Your task to perform on an android device: Find coffee shops on Maps Image 0: 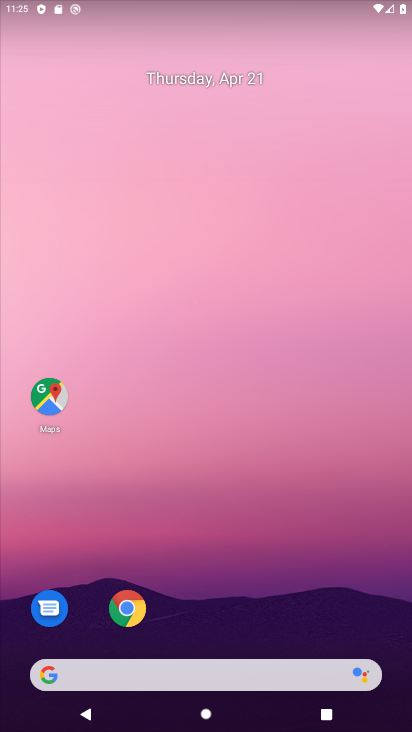
Step 0: drag from (99, 201) to (75, 2)
Your task to perform on an android device: Find coffee shops on Maps Image 1: 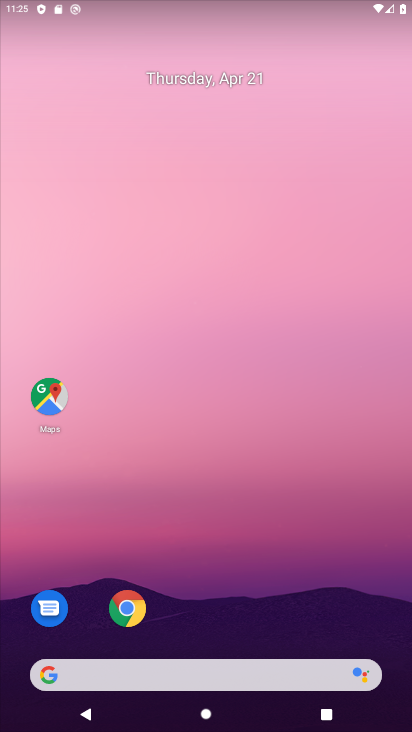
Step 1: drag from (228, 679) to (49, 64)
Your task to perform on an android device: Find coffee shops on Maps Image 2: 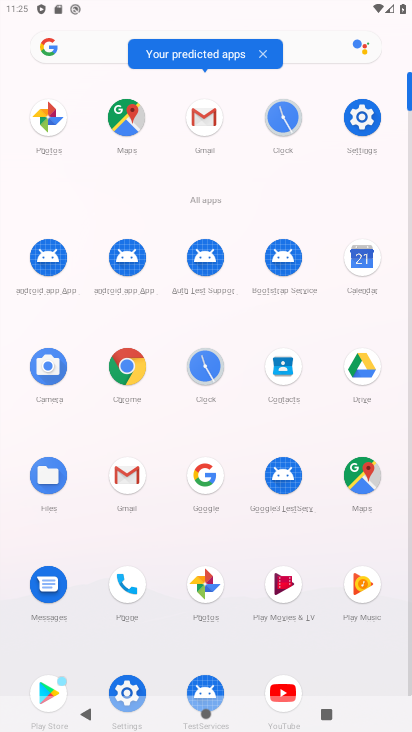
Step 2: click (374, 475)
Your task to perform on an android device: Find coffee shops on Maps Image 3: 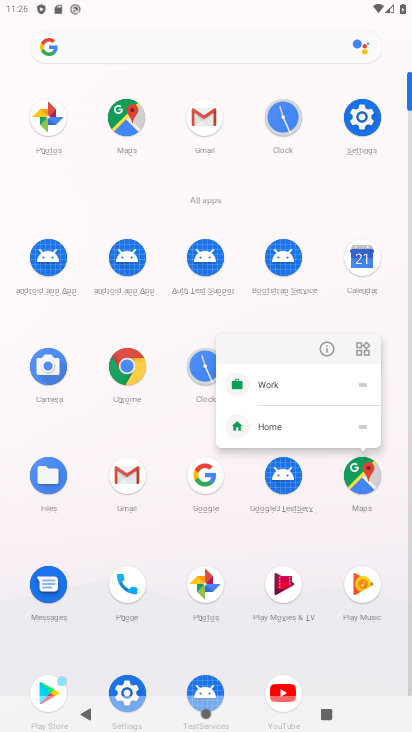
Step 3: click (357, 477)
Your task to perform on an android device: Find coffee shops on Maps Image 4: 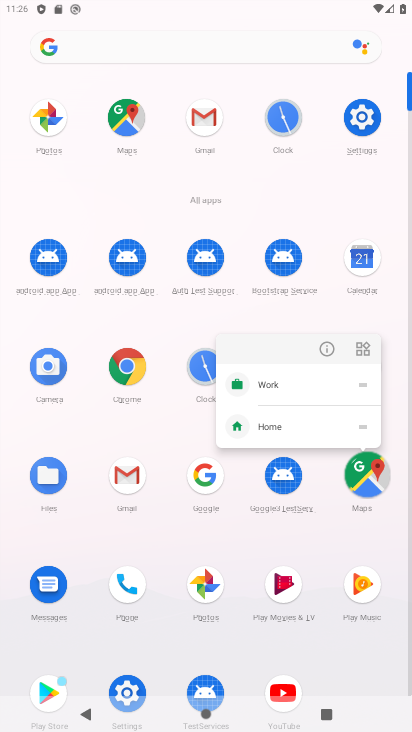
Step 4: click (362, 476)
Your task to perform on an android device: Find coffee shops on Maps Image 5: 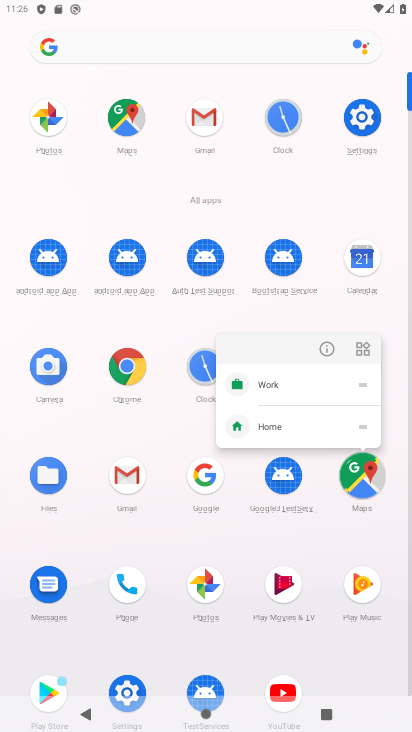
Step 5: click (362, 476)
Your task to perform on an android device: Find coffee shops on Maps Image 6: 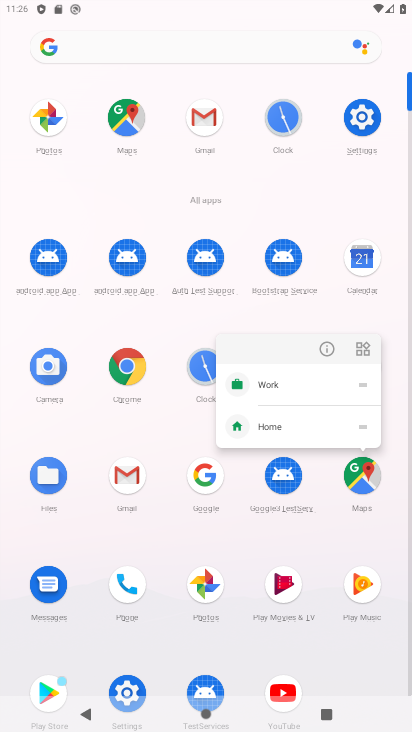
Step 6: click (365, 470)
Your task to perform on an android device: Find coffee shops on Maps Image 7: 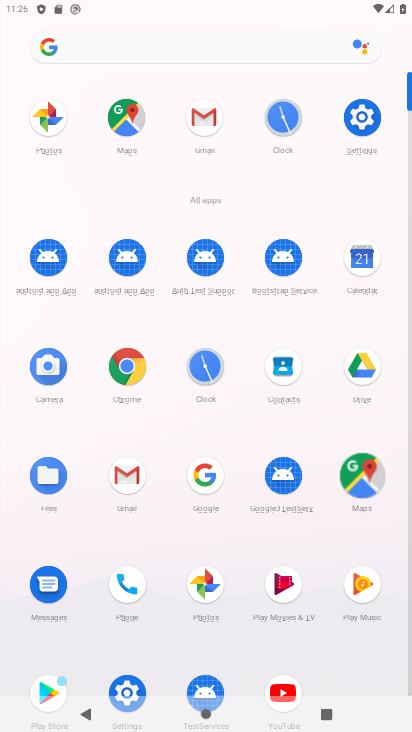
Step 7: click (368, 468)
Your task to perform on an android device: Find coffee shops on Maps Image 8: 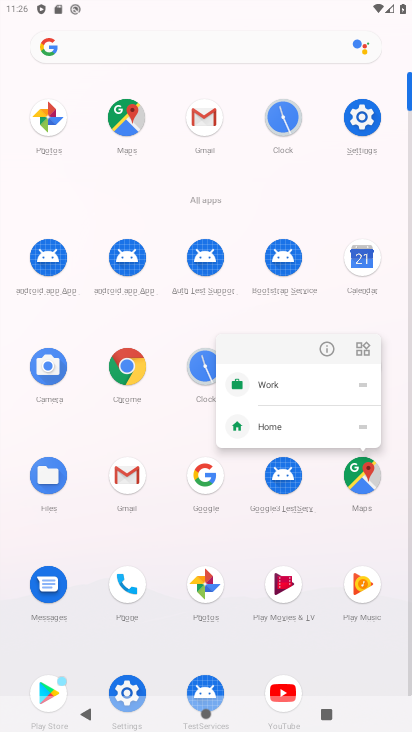
Step 8: click (359, 481)
Your task to perform on an android device: Find coffee shops on Maps Image 9: 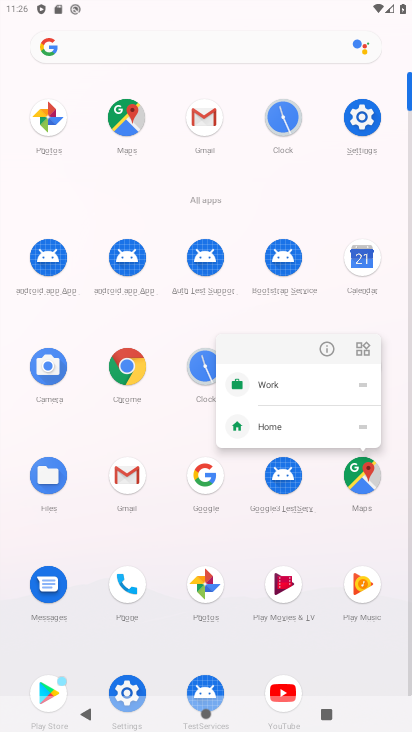
Step 9: click (359, 455)
Your task to perform on an android device: Find coffee shops on Maps Image 10: 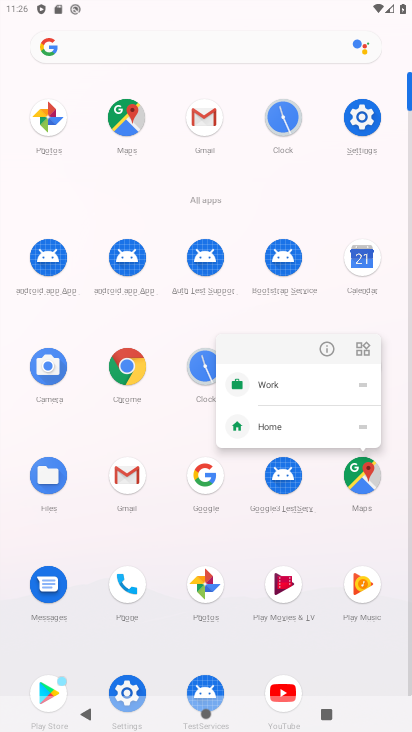
Step 10: click (366, 486)
Your task to perform on an android device: Find coffee shops on Maps Image 11: 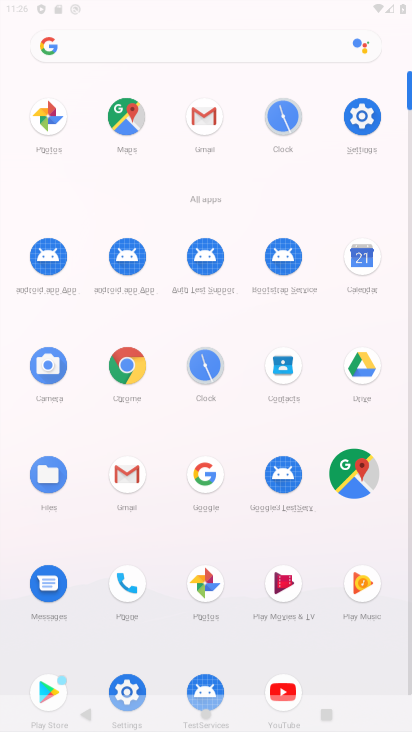
Step 11: click (357, 466)
Your task to perform on an android device: Find coffee shops on Maps Image 12: 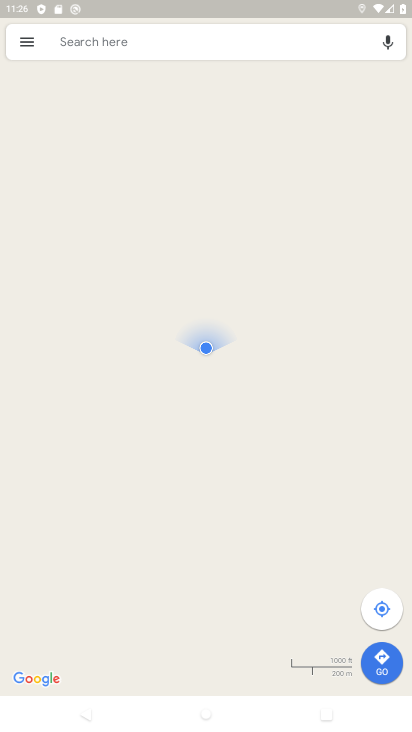
Step 12: click (54, 37)
Your task to perform on an android device: Find coffee shops on Maps Image 13: 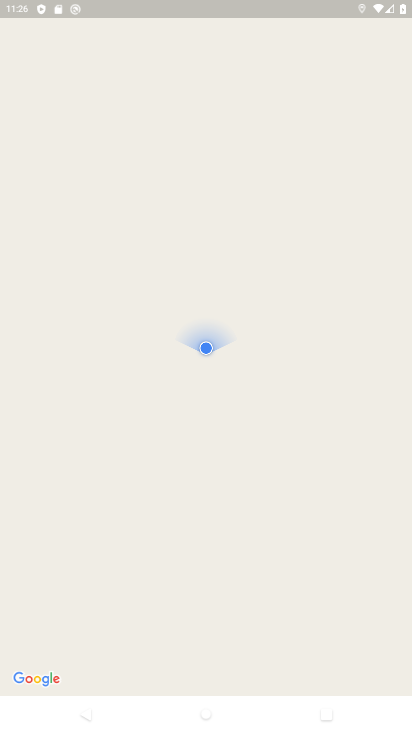
Step 13: click (54, 37)
Your task to perform on an android device: Find coffee shops on Maps Image 14: 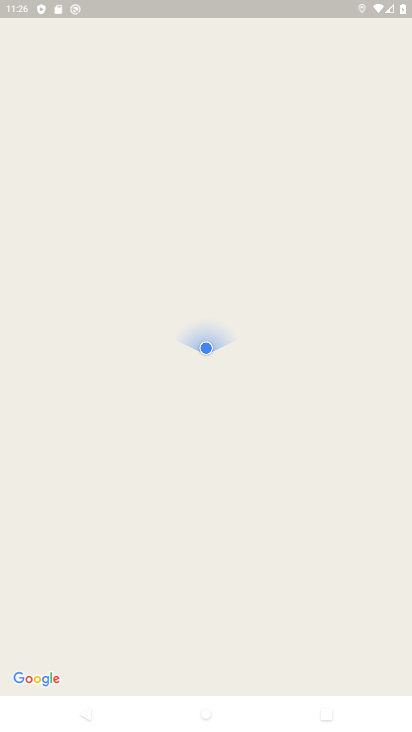
Step 14: click (54, 37)
Your task to perform on an android device: Find coffee shops on Maps Image 15: 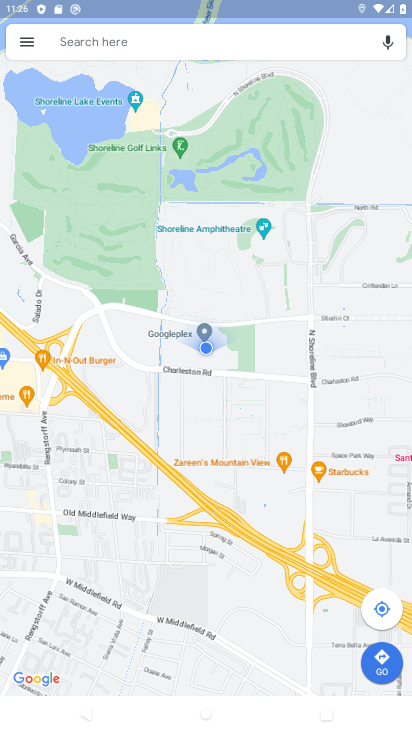
Step 15: click (78, 36)
Your task to perform on an android device: Find coffee shops on Maps Image 16: 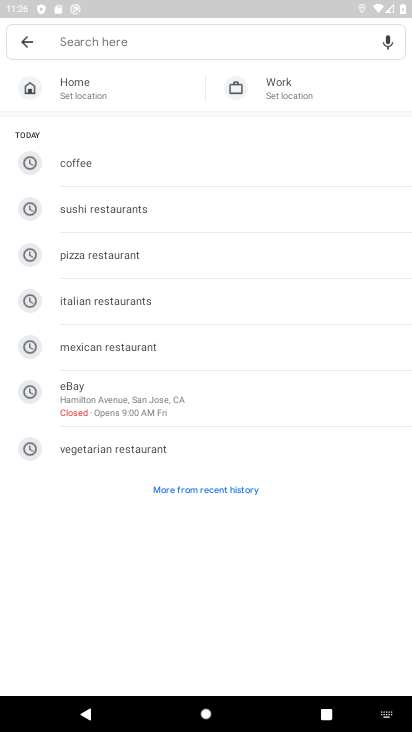
Step 16: click (89, 166)
Your task to perform on an android device: Find coffee shops on Maps Image 17: 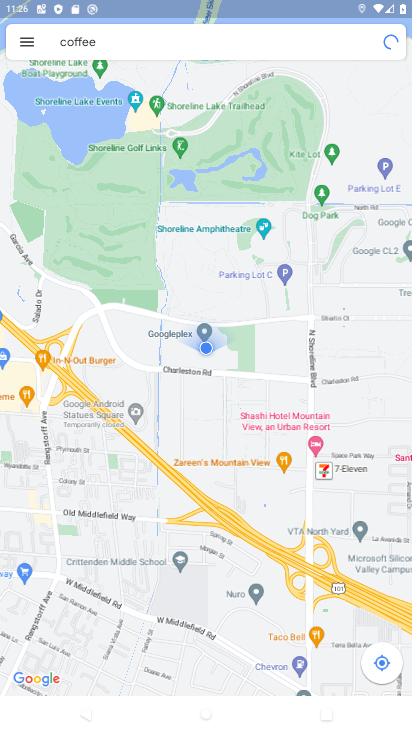
Step 17: task complete